Your task to perform on an android device: turn on location history Image 0: 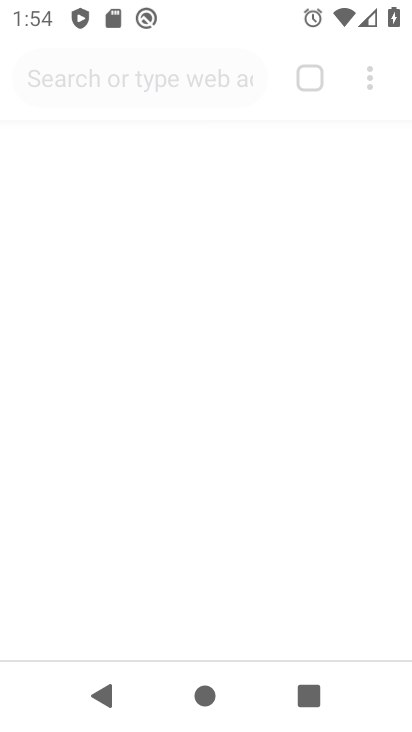
Step 0: drag from (387, 624) to (352, 239)
Your task to perform on an android device: turn on location history Image 1: 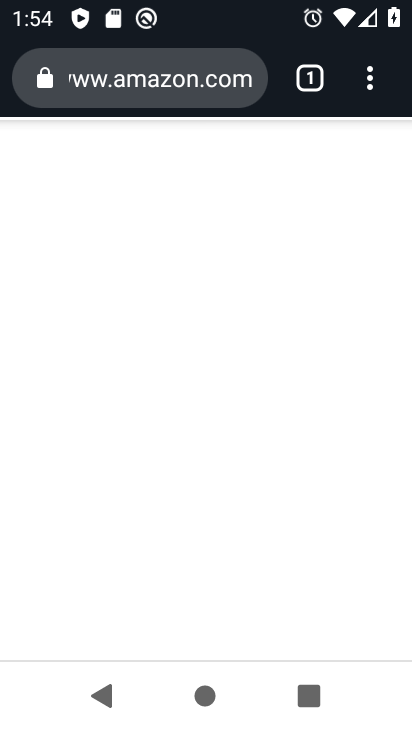
Step 1: press home button
Your task to perform on an android device: turn on location history Image 2: 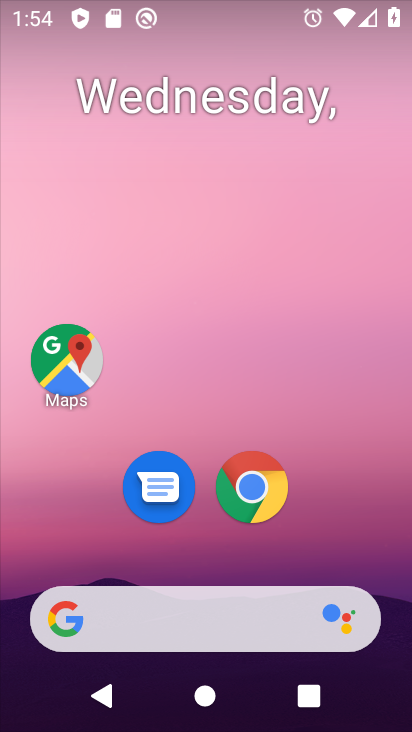
Step 2: drag from (396, 621) to (335, 93)
Your task to perform on an android device: turn on location history Image 3: 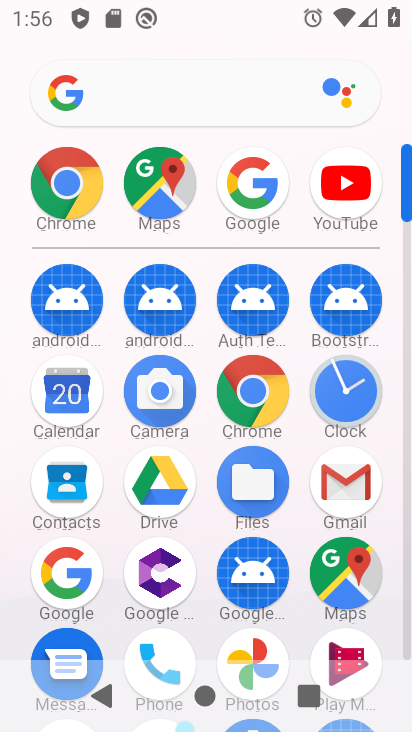
Step 3: click (404, 648)
Your task to perform on an android device: turn on location history Image 4: 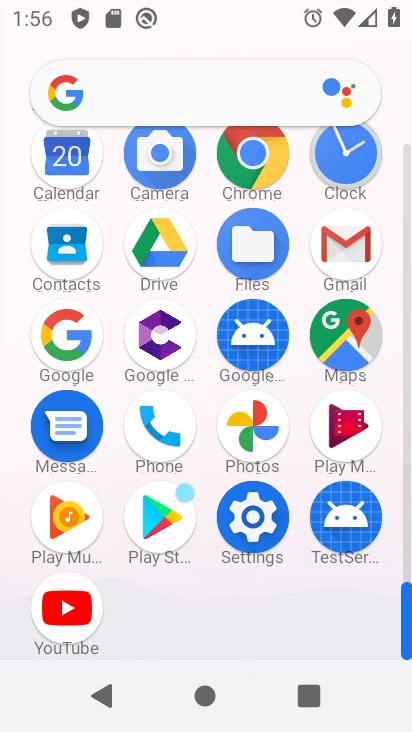
Step 4: click (252, 530)
Your task to perform on an android device: turn on location history Image 5: 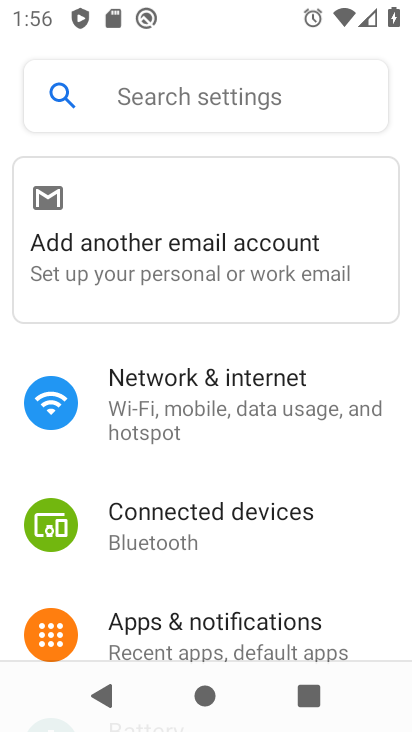
Step 5: drag from (164, 626) to (236, 58)
Your task to perform on an android device: turn on location history Image 6: 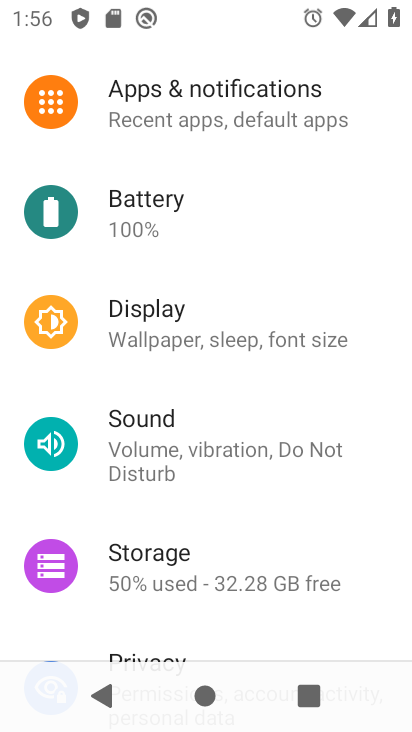
Step 6: drag from (186, 573) to (216, 126)
Your task to perform on an android device: turn on location history Image 7: 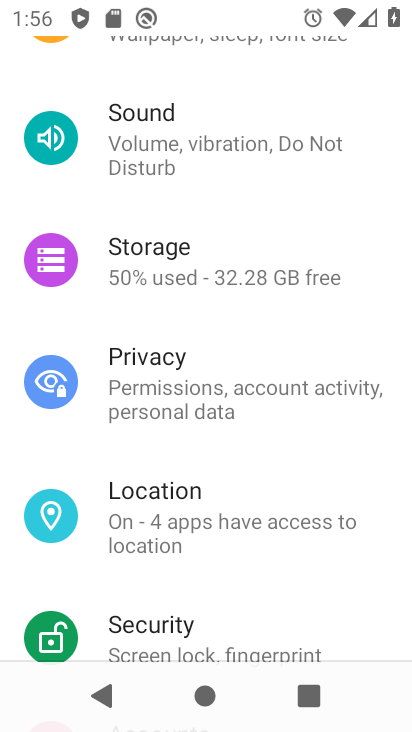
Step 7: click (132, 514)
Your task to perform on an android device: turn on location history Image 8: 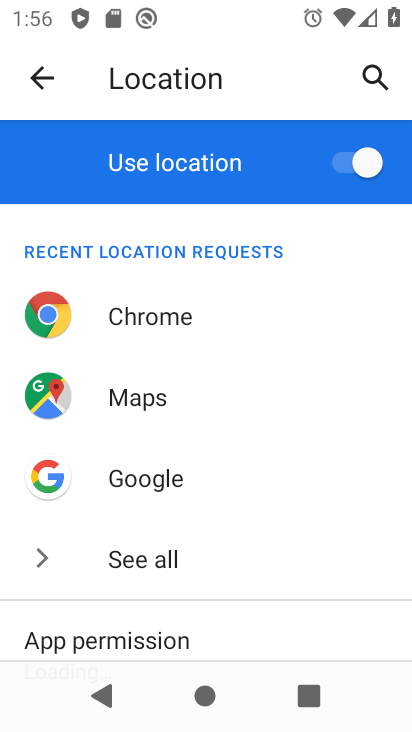
Step 8: drag from (103, 582) to (157, 141)
Your task to perform on an android device: turn on location history Image 9: 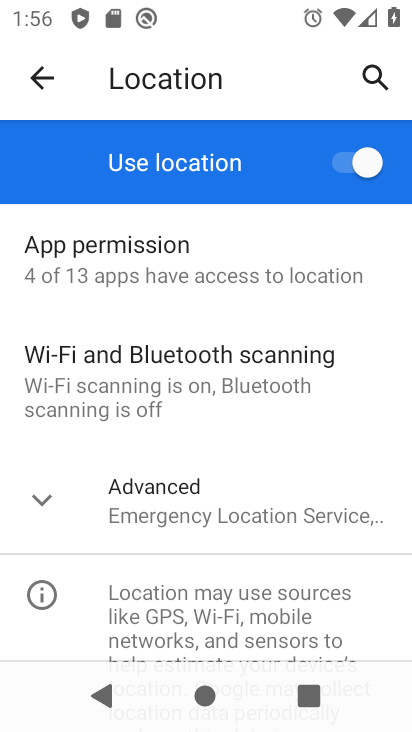
Step 9: click (72, 517)
Your task to perform on an android device: turn on location history Image 10: 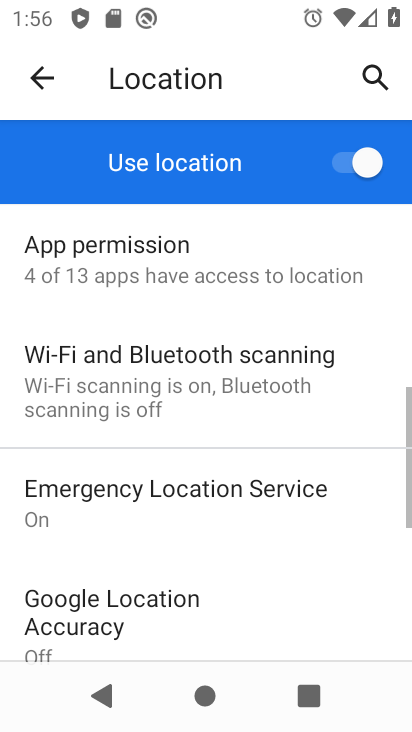
Step 10: drag from (171, 616) to (204, 287)
Your task to perform on an android device: turn on location history Image 11: 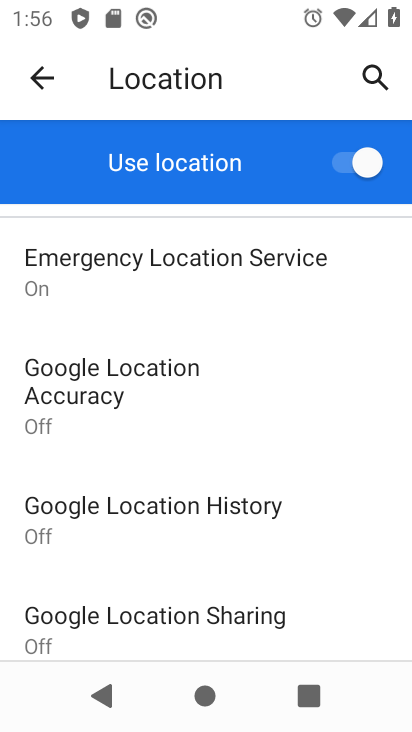
Step 11: click (135, 519)
Your task to perform on an android device: turn on location history Image 12: 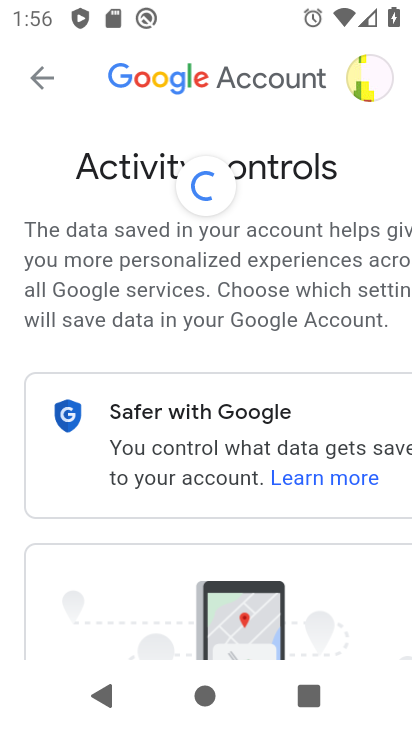
Step 12: drag from (299, 576) to (206, 103)
Your task to perform on an android device: turn on location history Image 13: 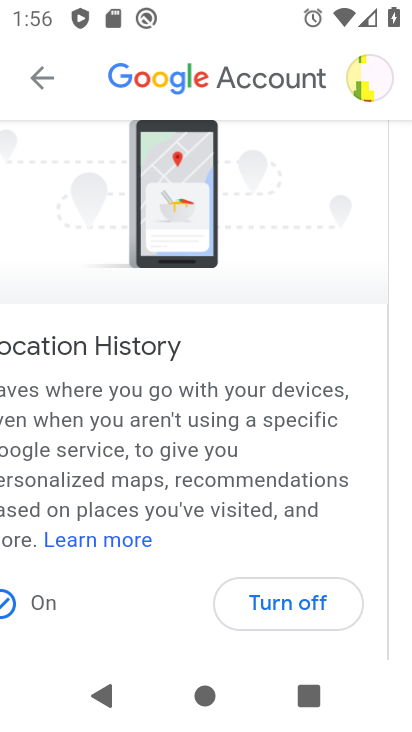
Step 13: drag from (231, 540) to (283, 325)
Your task to perform on an android device: turn on location history Image 14: 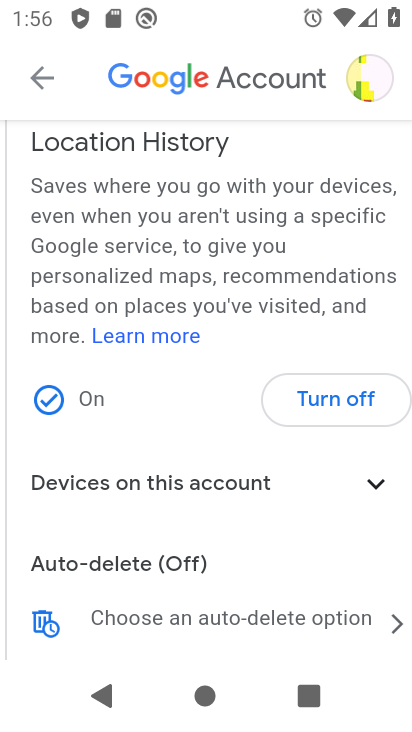
Step 14: click (312, 392)
Your task to perform on an android device: turn on location history Image 15: 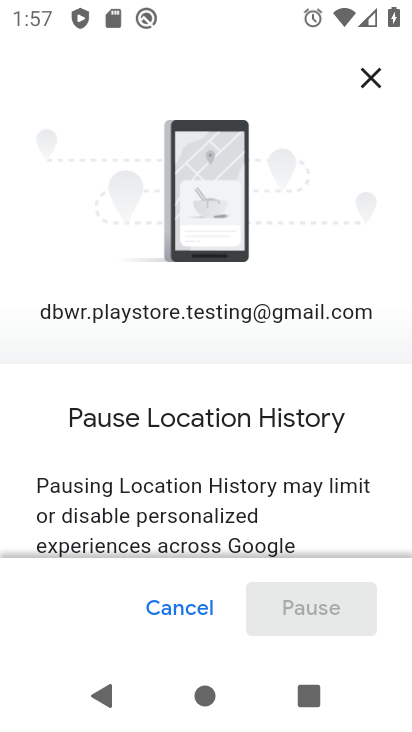
Step 15: task complete